Your task to perform on an android device: Set the phone to "Do not disturb". Image 0: 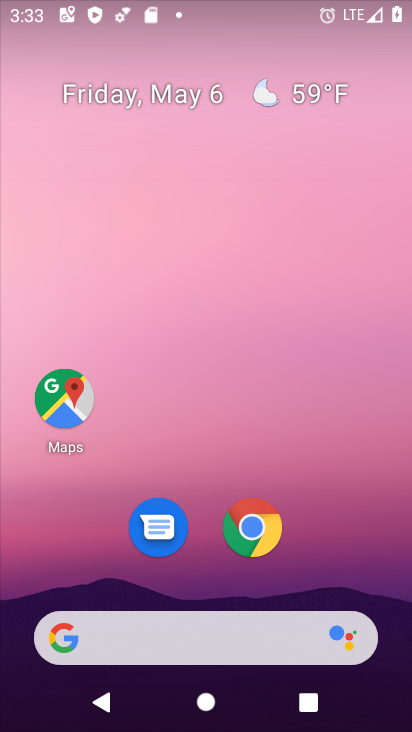
Step 0: drag from (188, 5) to (225, 423)
Your task to perform on an android device: Set the phone to "Do not disturb". Image 1: 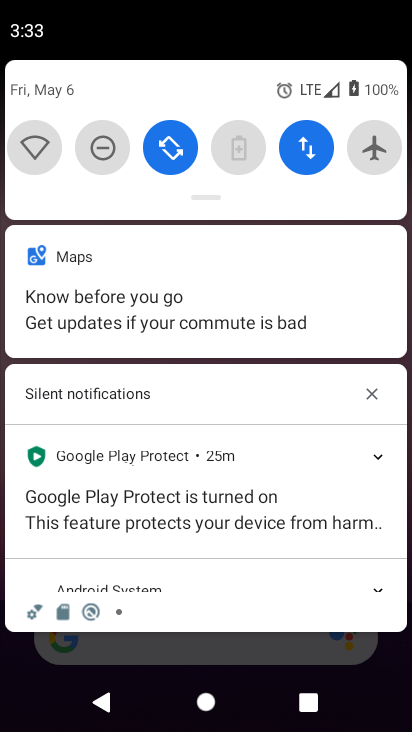
Step 1: click (92, 151)
Your task to perform on an android device: Set the phone to "Do not disturb". Image 2: 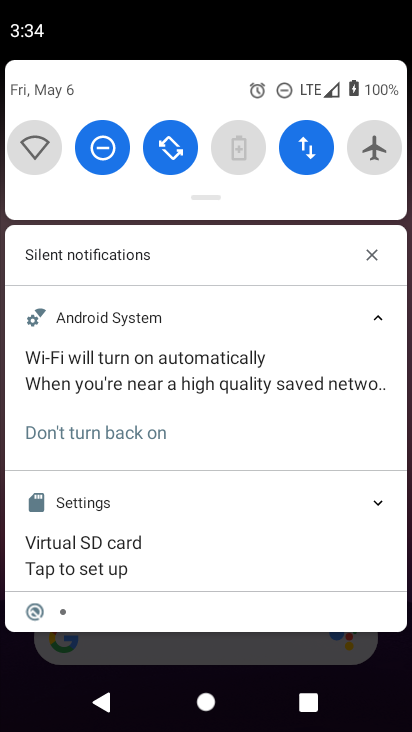
Step 2: task complete